Your task to perform on an android device: Open calendar and show me the fourth week of next month Image 0: 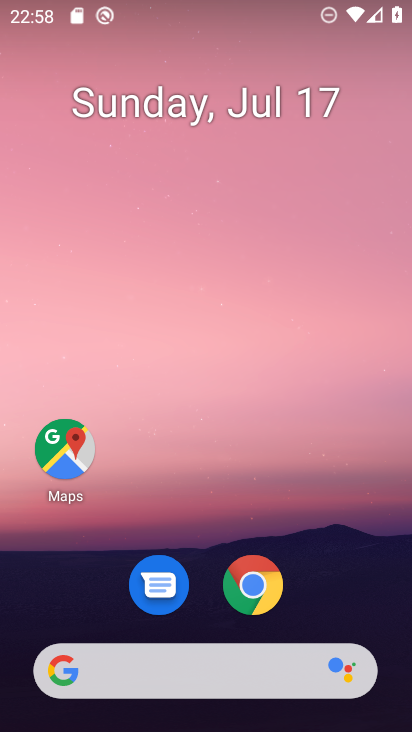
Step 0: press home button
Your task to perform on an android device: Open calendar and show me the fourth week of next month Image 1: 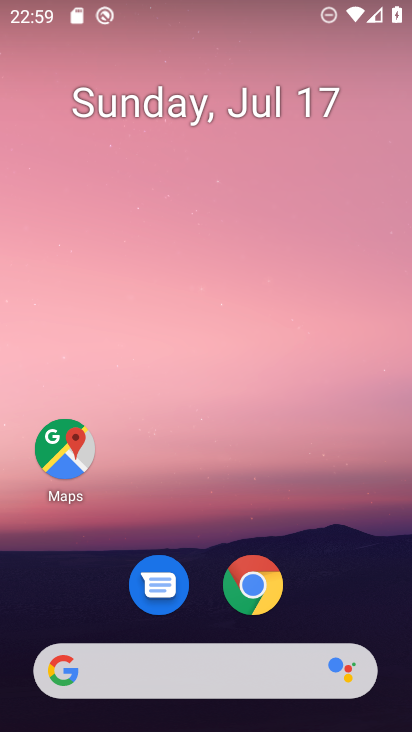
Step 1: drag from (220, 672) to (404, 47)
Your task to perform on an android device: Open calendar and show me the fourth week of next month Image 2: 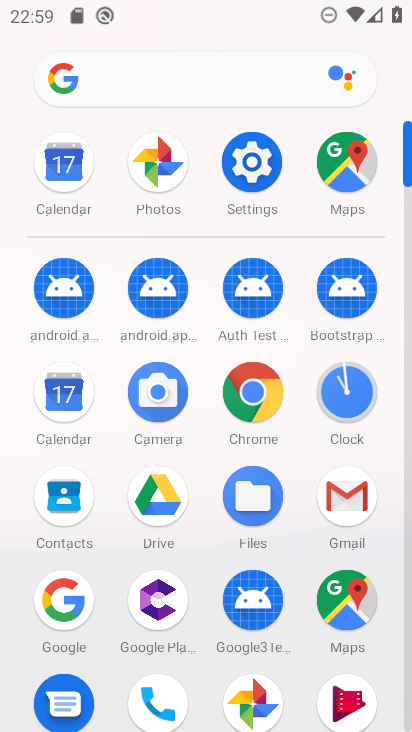
Step 2: click (60, 401)
Your task to perform on an android device: Open calendar and show me the fourth week of next month Image 3: 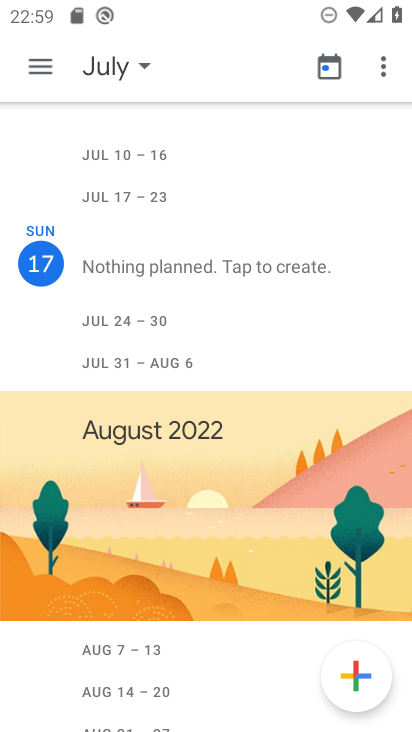
Step 3: click (97, 71)
Your task to perform on an android device: Open calendar and show me the fourth week of next month Image 4: 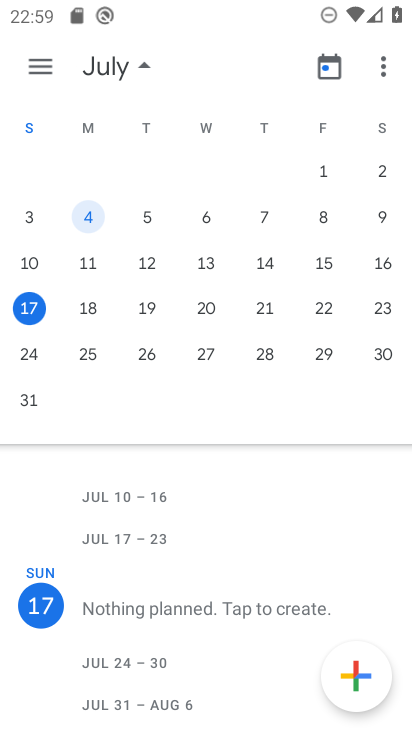
Step 4: drag from (342, 327) to (0, 251)
Your task to perform on an android device: Open calendar and show me the fourth week of next month Image 5: 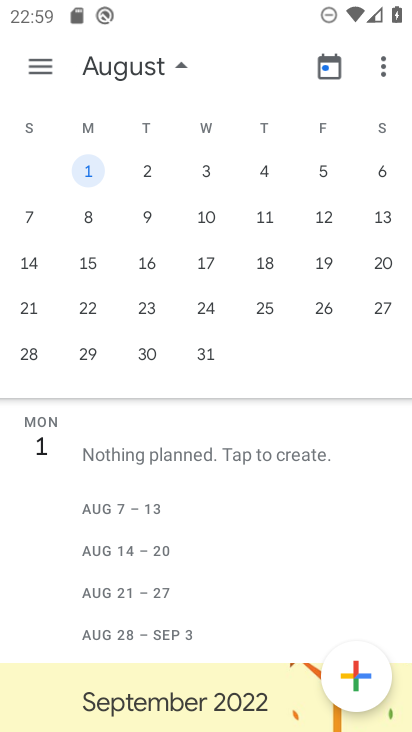
Step 5: click (33, 307)
Your task to perform on an android device: Open calendar and show me the fourth week of next month Image 6: 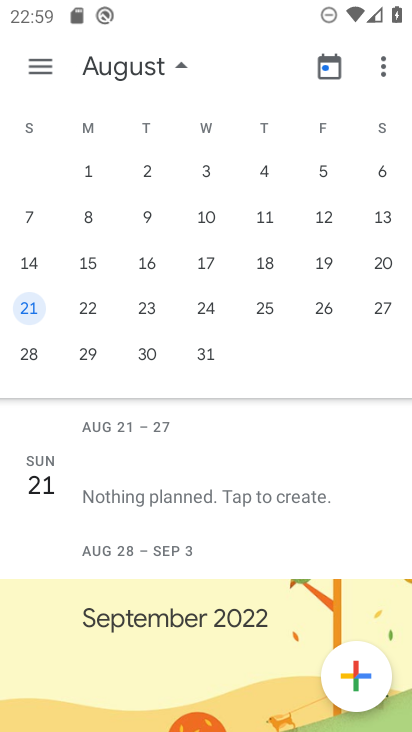
Step 6: click (38, 61)
Your task to perform on an android device: Open calendar and show me the fourth week of next month Image 7: 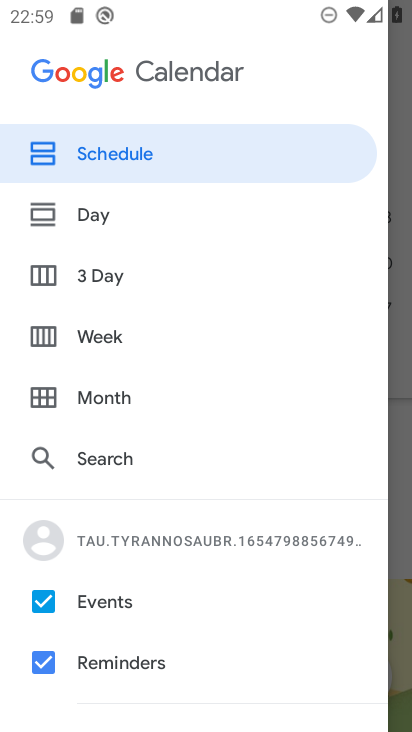
Step 7: click (127, 339)
Your task to perform on an android device: Open calendar and show me the fourth week of next month Image 8: 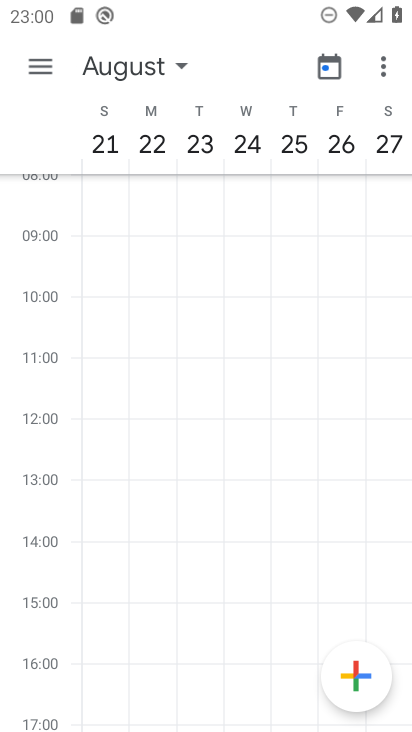
Step 8: task complete